Your task to perform on an android device: create a new album in the google photos Image 0: 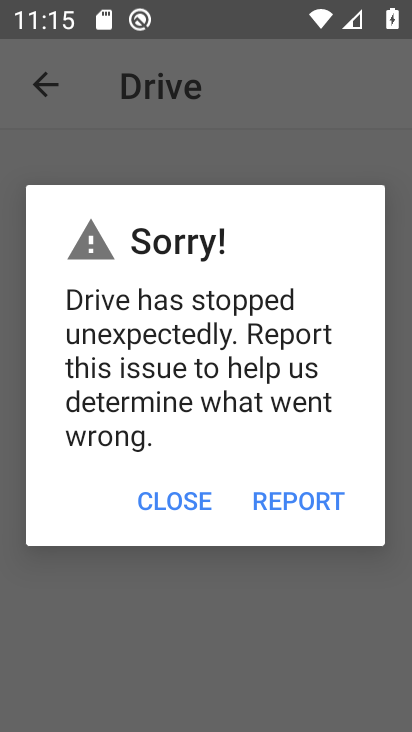
Step 0: press home button
Your task to perform on an android device: create a new album in the google photos Image 1: 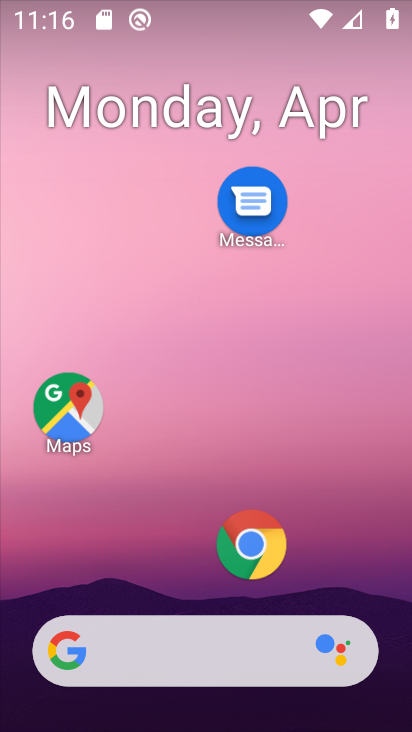
Step 1: drag from (190, 582) to (236, 136)
Your task to perform on an android device: create a new album in the google photos Image 2: 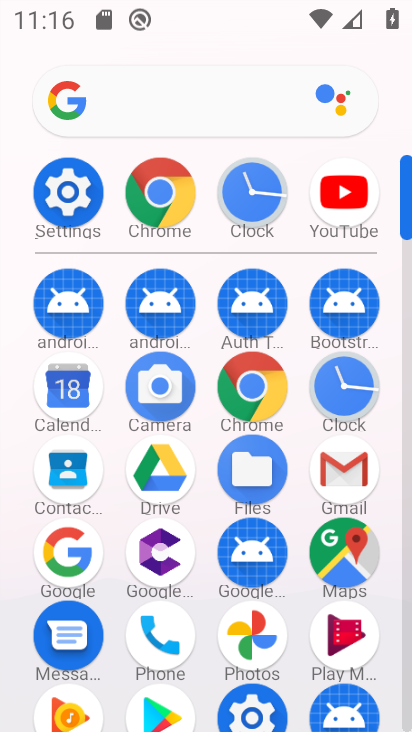
Step 2: click (249, 621)
Your task to perform on an android device: create a new album in the google photos Image 3: 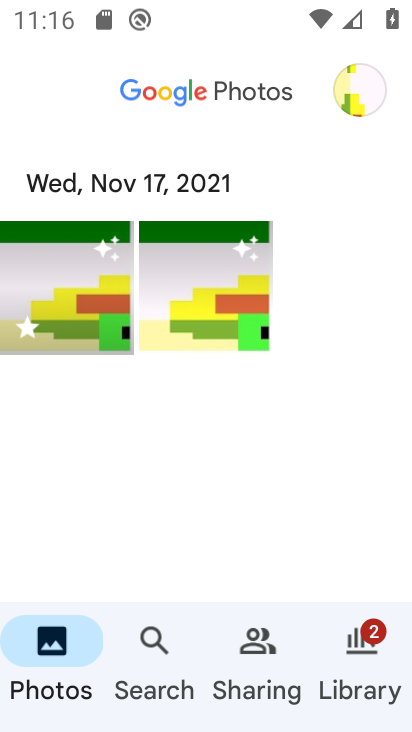
Step 3: click (260, 652)
Your task to perform on an android device: create a new album in the google photos Image 4: 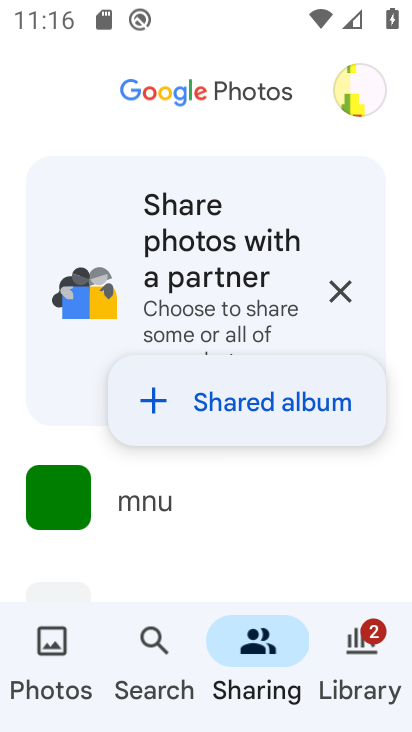
Step 4: click (211, 380)
Your task to perform on an android device: create a new album in the google photos Image 5: 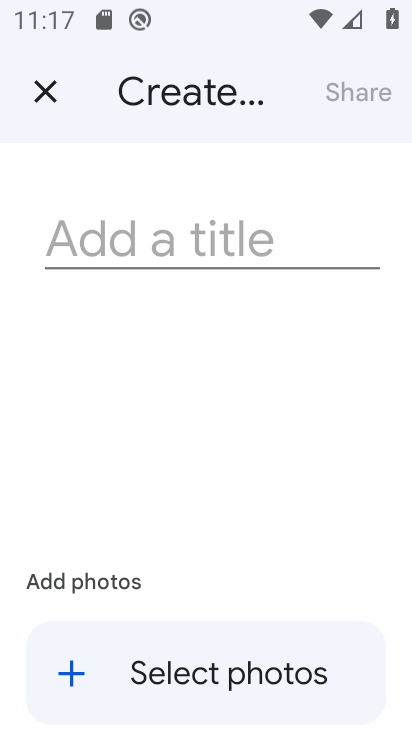
Step 5: click (95, 670)
Your task to perform on an android device: create a new album in the google photos Image 6: 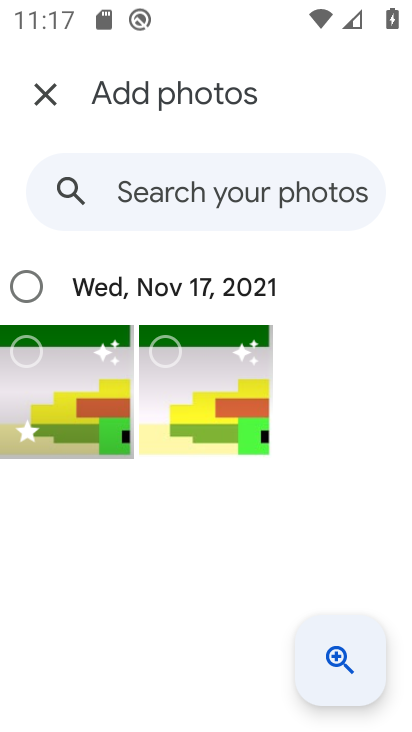
Step 6: click (22, 278)
Your task to perform on an android device: create a new album in the google photos Image 7: 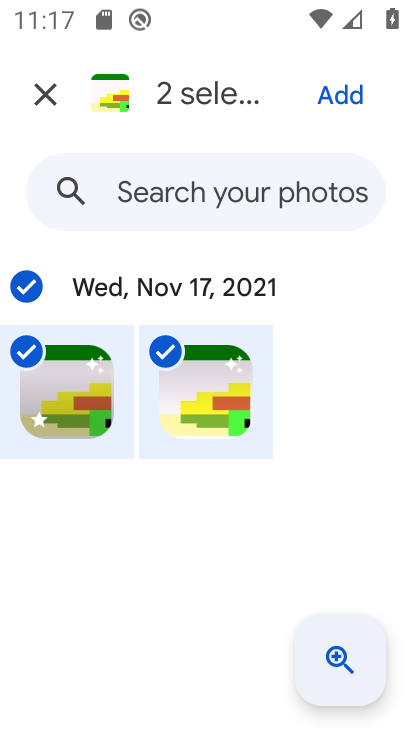
Step 7: click (335, 89)
Your task to perform on an android device: create a new album in the google photos Image 8: 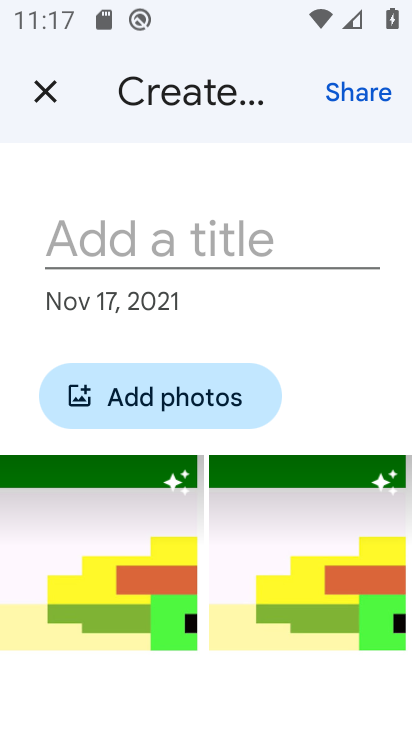
Step 8: click (161, 234)
Your task to perform on an android device: create a new album in the google photos Image 9: 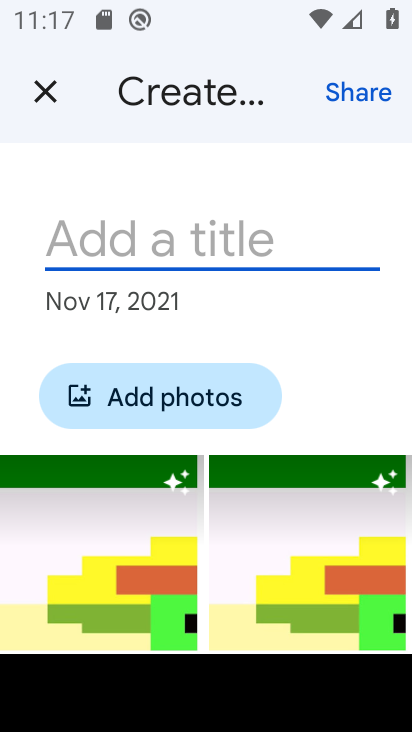
Step 9: type "kjbgc"
Your task to perform on an android device: create a new album in the google photos Image 10: 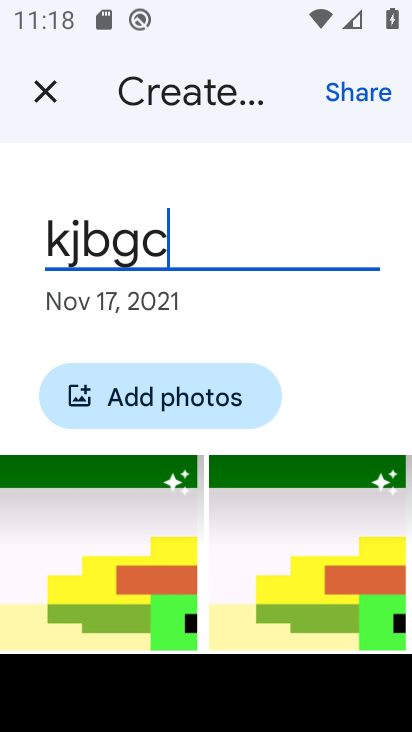
Step 10: drag from (331, 376) to (349, 93)
Your task to perform on an android device: create a new album in the google photos Image 11: 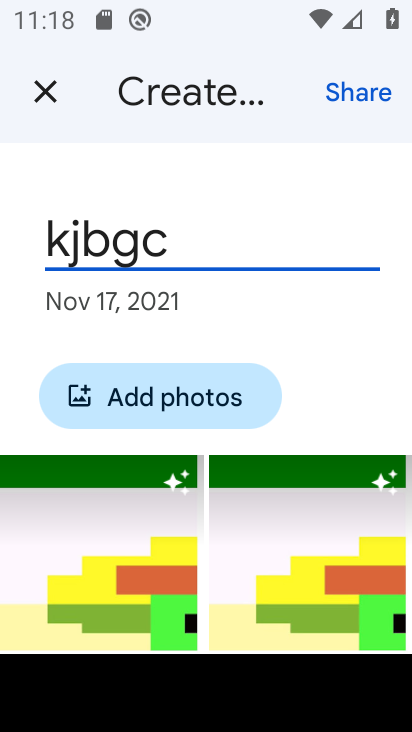
Step 11: click (321, 403)
Your task to perform on an android device: create a new album in the google photos Image 12: 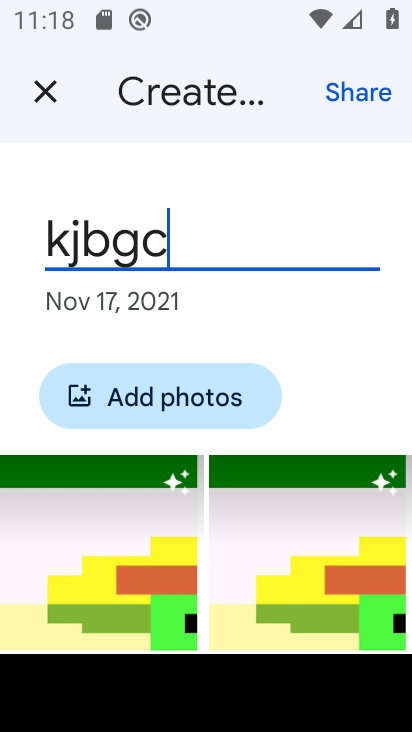
Step 12: task complete